Your task to perform on an android device: turn on showing notifications on the lock screen Image 0: 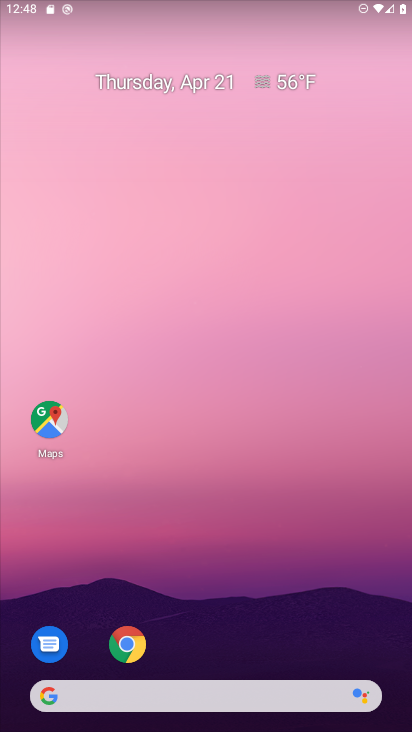
Step 0: drag from (142, 633) to (168, 94)
Your task to perform on an android device: turn on showing notifications on the lock screen Image 1: 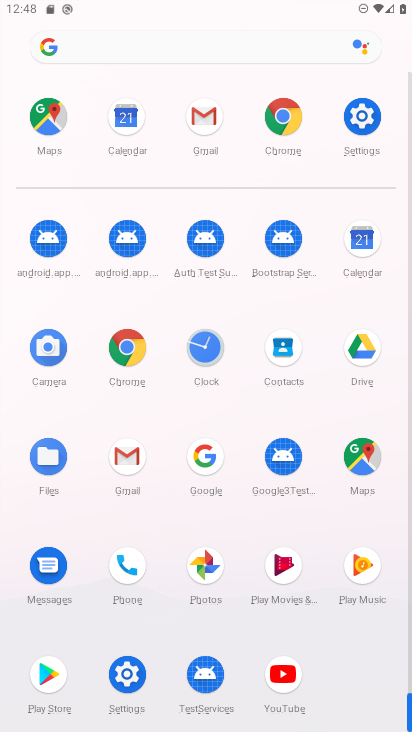
Step 1: click (364, 111)
Your task to perform on an android device: turn on showing notifications on the lock screen Image 2: 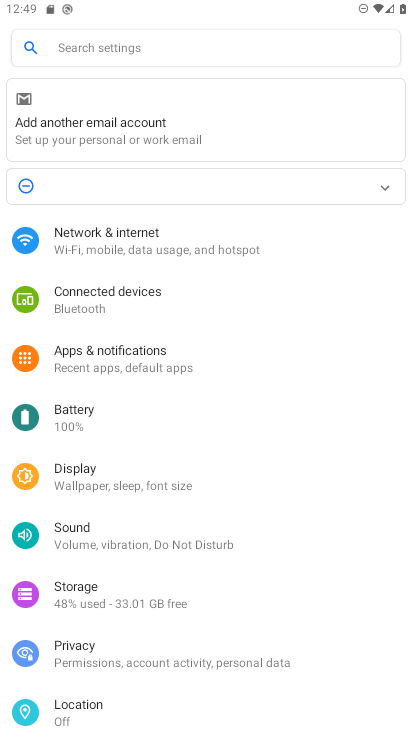
Step 2: drag from (111, 628) to (134, 407)
Your task to perform on an android device: turn on showing notifications on the lock screen Image 3: 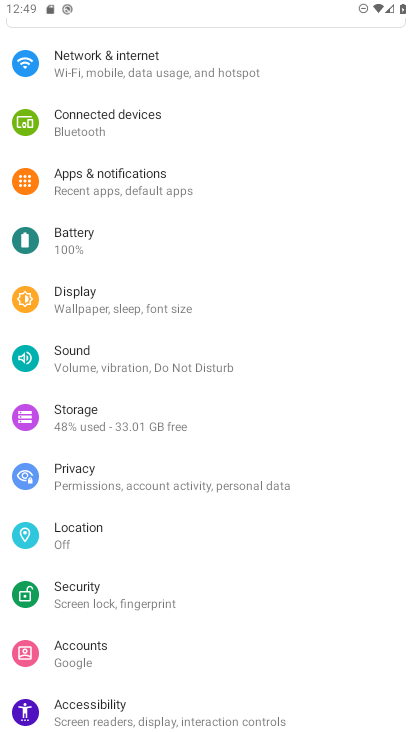
Step 3: click (105, 178)
Your task to perform on an android device: turn on showing notifications on the lock screen Image 4: 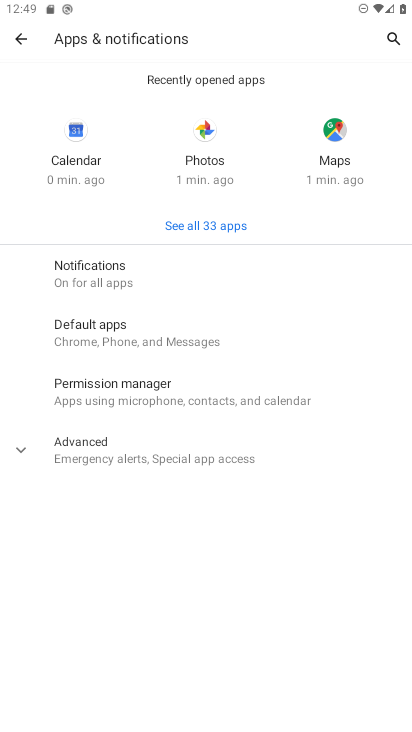
Step 4: click (85, 279)
Your task to perform on an android device: turn on showing notifications on the lock screen Image 5: 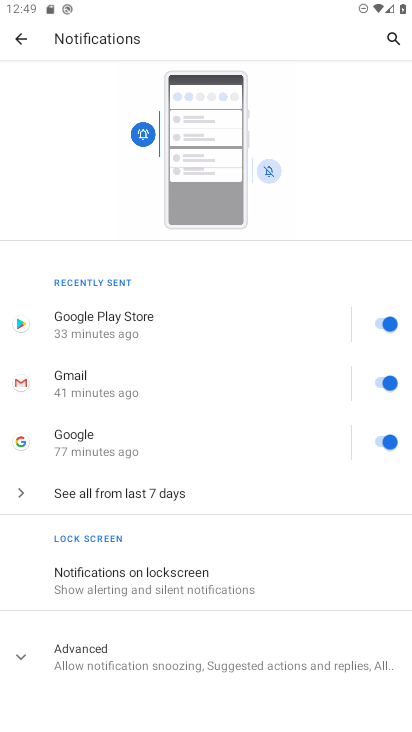
Step 5: click (49, 590)
Your task to perform on an android device: turn on showing notifications on the lock screen Image 6: 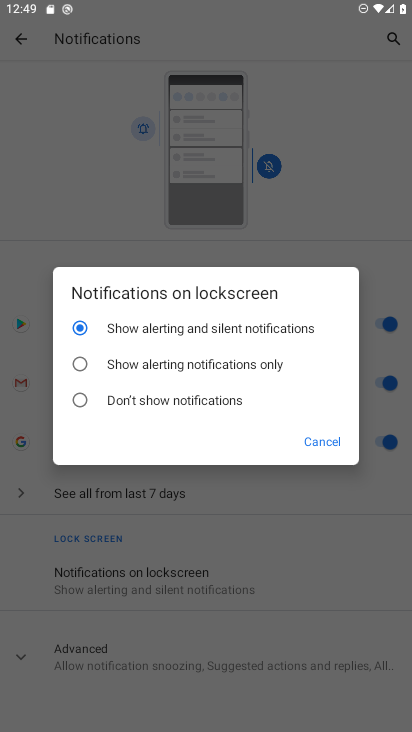
Step 6: task complete